Your task to perform on an android device: change notifications settings Image 0: 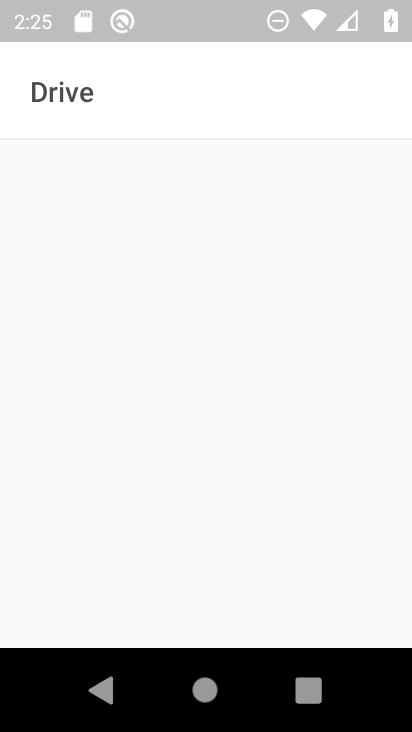
Step 0: press home button
Your task to perform on an android device: change notifications settings Image 1: 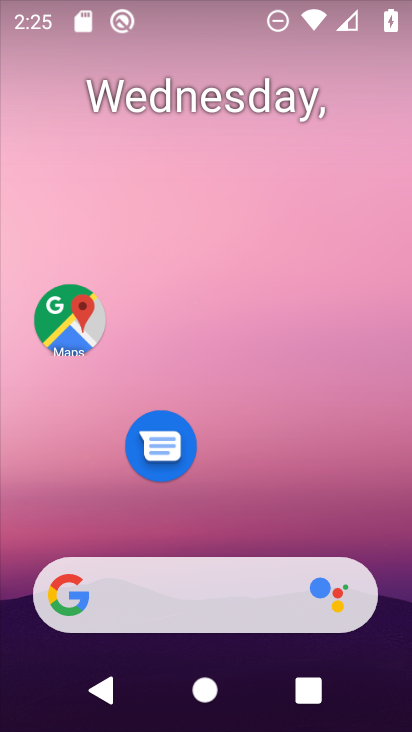
Step 1: drag from (325, 535) to (281, 169)
Your task to perform on an android device: change notifications settings Image 2: 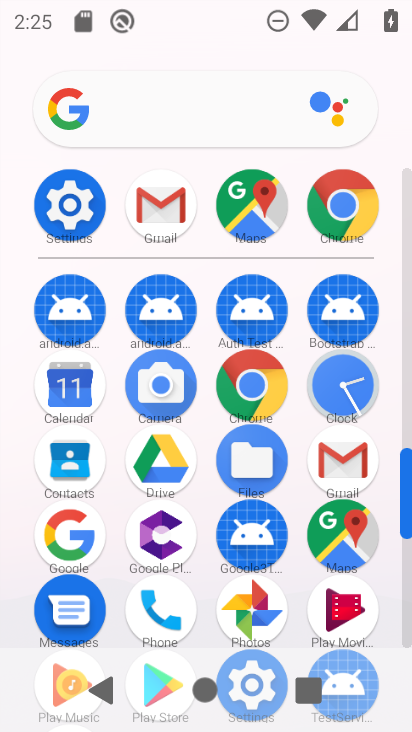
Step 2: click (84, 225)
Your task to perform on an android device: change notifications settings Image 3: 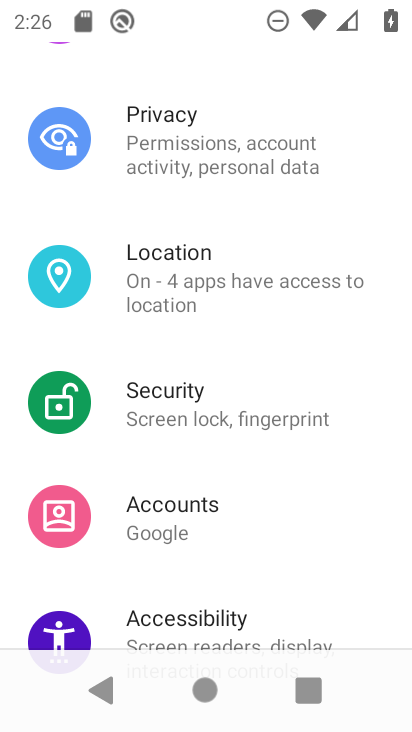
Step 3: drag from (127, 233) to (217, 673)
Your task to perform on an android device: change notifications settings Image 4: 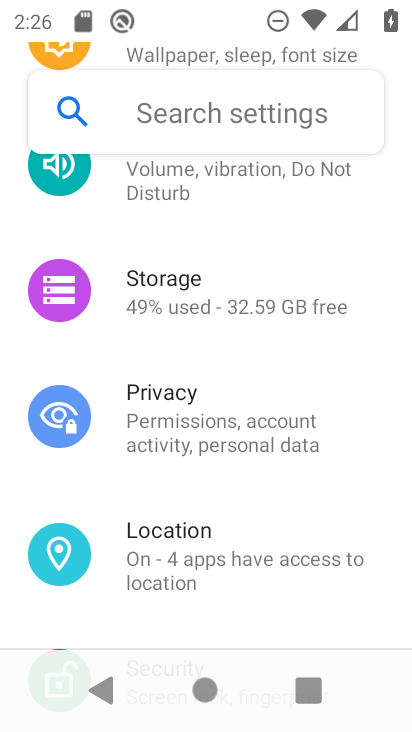
Step 4: drag from (253, 389) to (144, 705)
Your task to perform on an android device: change notifications settings Image 5: 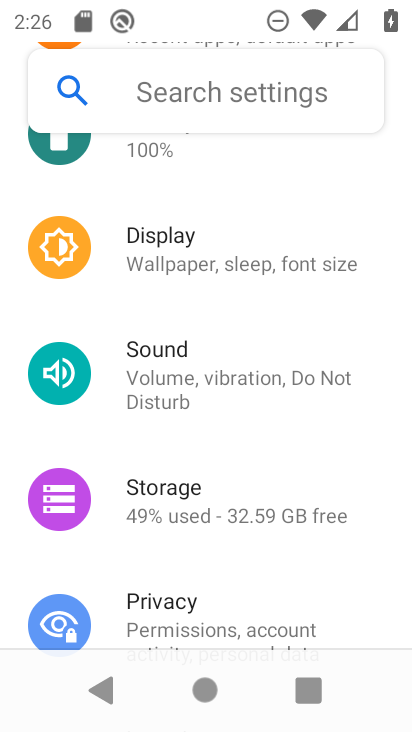
Step 5: drag from (212, 195) to (209, 343)
Your task to perform on an android device: change notifications settings Image 6: 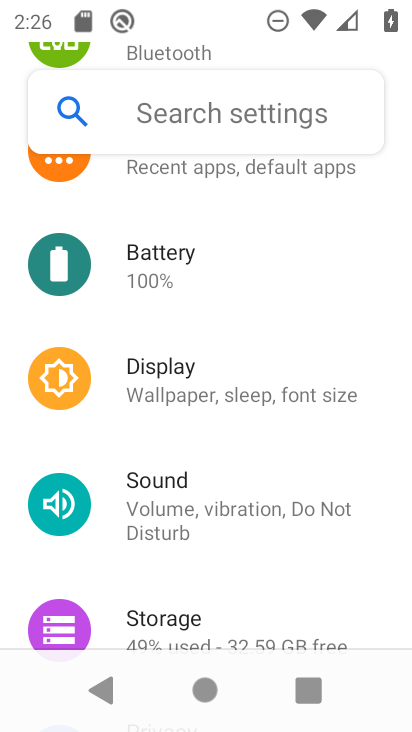
Step 6: drag from (279, 215) to (383, 717)
Your task to perform on an android device: change notifications settings Image 7: 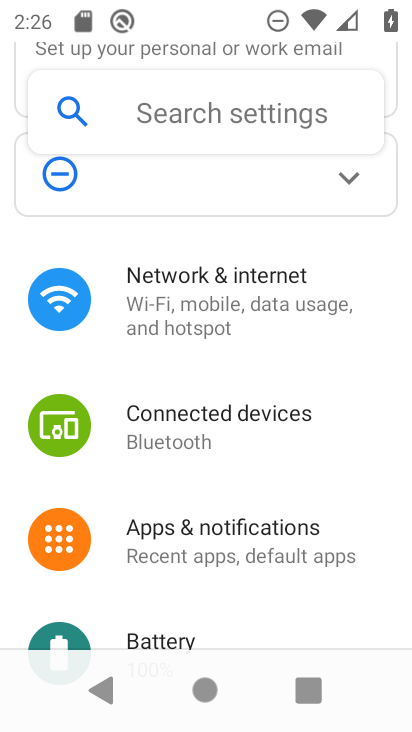
Step 7: click (295, 546)
Your task to perform on an android device: change notifications settings Image 8: 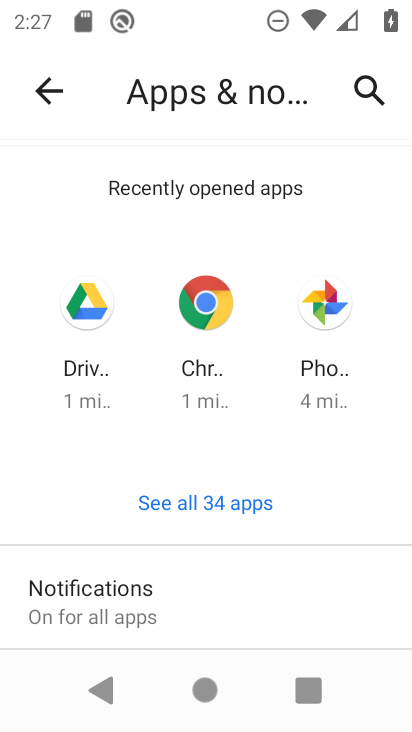
Step 8: click (224, 584)
Your task to perform on an android device: change notifications settings Image 9: 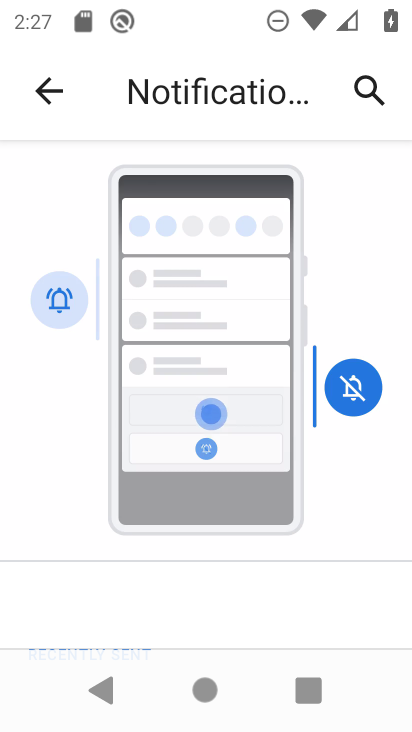
Step 9: task complete